Your task to perform on an android device: uninstall "Google Chat" Image 0: 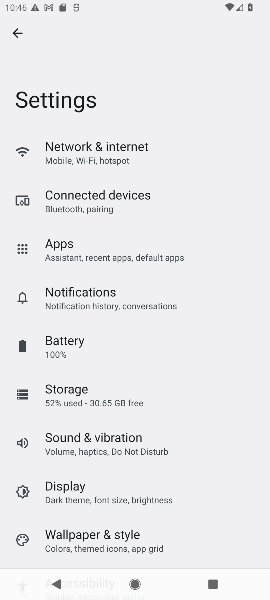
Step 0: press home button
Your task to perform on an android device: uninstall "Google Chat" Image 1: 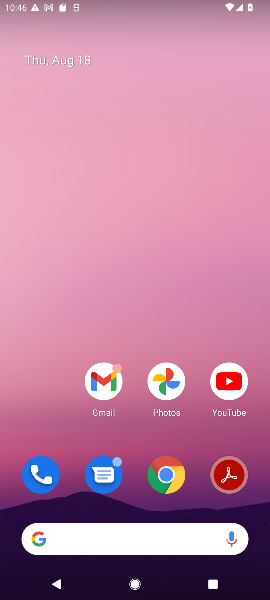
Step 1: drag from (139, 515) to (115, 159)
Your task to perform on an android device: uninstall "Google Chat" Image 2: 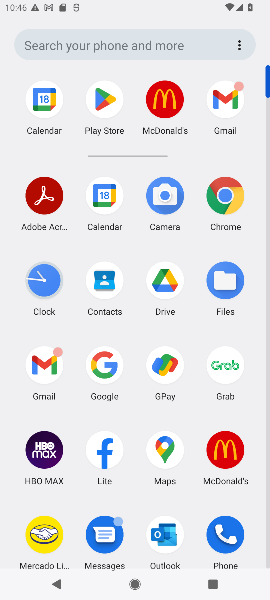
Step 2: click (106, 102)
Your task to perform on an android device: uninstall "Google Chat" Image 3: 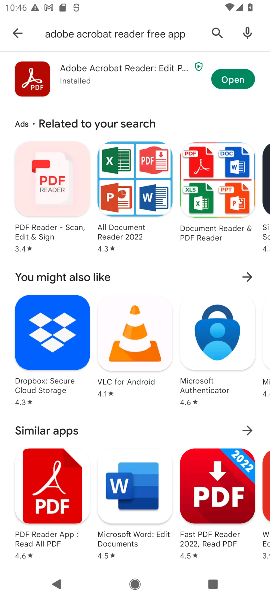
Step 3: click (11, 32)
Your task to perform on an android device: uninstall "Google Chat" Image 4: 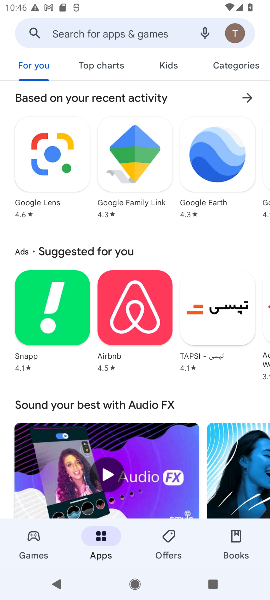
Step 4: click (89, 28)
Your task to perform on an android device: uninstall "Google Chat" Image 5: 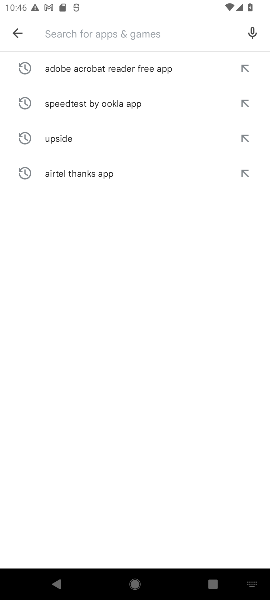
Step 5: type "Google Chat"
Your task to perform on an android device: uninstall "Google Chat" Image 6: 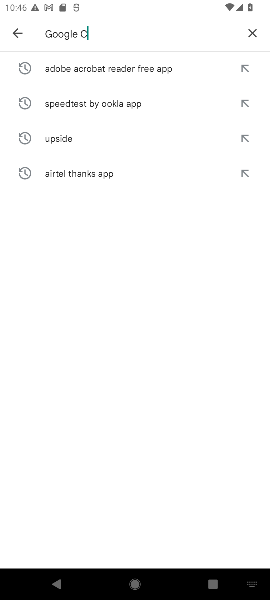
Step 6: type ""
Your task to perform on an android device: uninstall "Google Chat" Image 7: 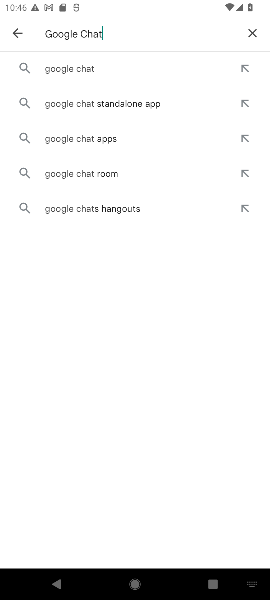
Step 7: click (89, 80)
Your task to perform on an android device: uninstall "Google Chat" Image 8: 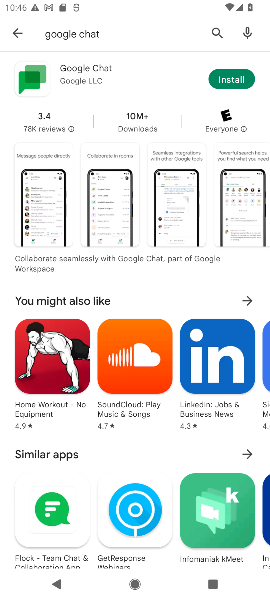
Step 8: click (84, 79)
Your task to perform on an android device: uninstall "Google Chat" Image 9: 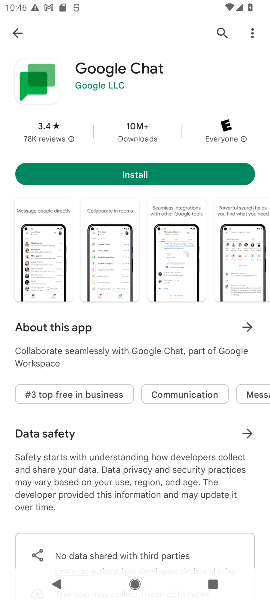
Step 9: task complete